Your task to perform on an android device: toggle improve location accuracy Image 0: 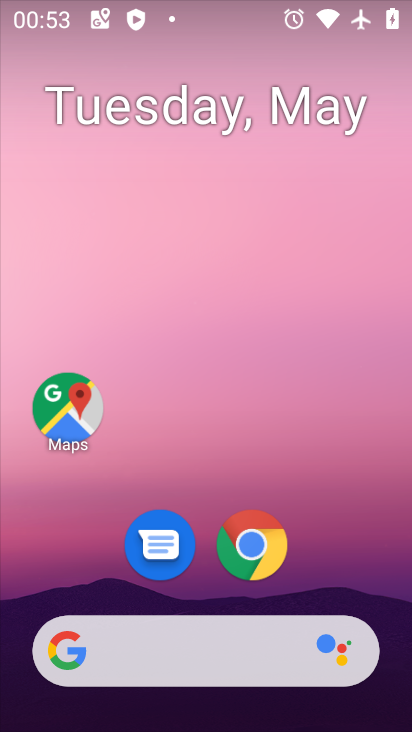
Step 0: drag from (333, 579) to (339, 17)
Your task to perform on an android device: toggle improve location accuracy Image 1: 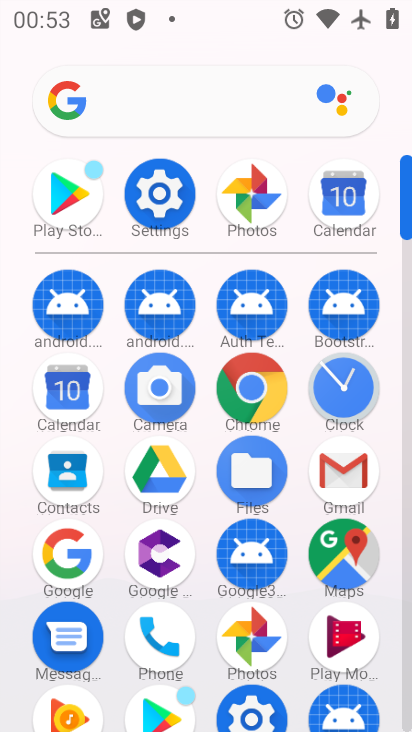
Step 1: click (161, 203)
Your task to perform on an android device: toggle improve location accuracy Image 2: 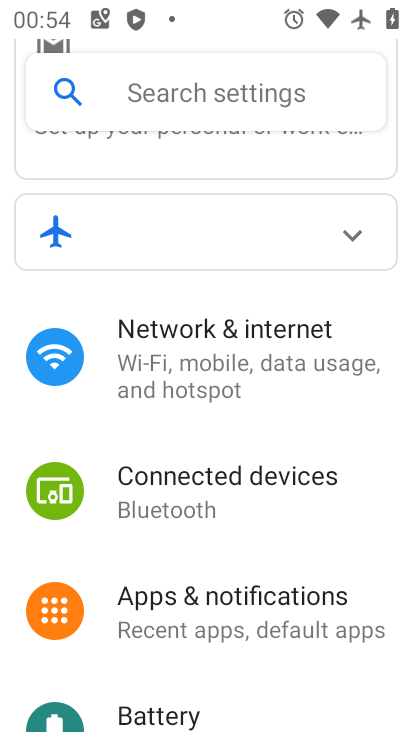
Step 2: drag from (186, 590) to (249, 187)
Your task to perform on an android device: toggle improve location accuracy Image 3: 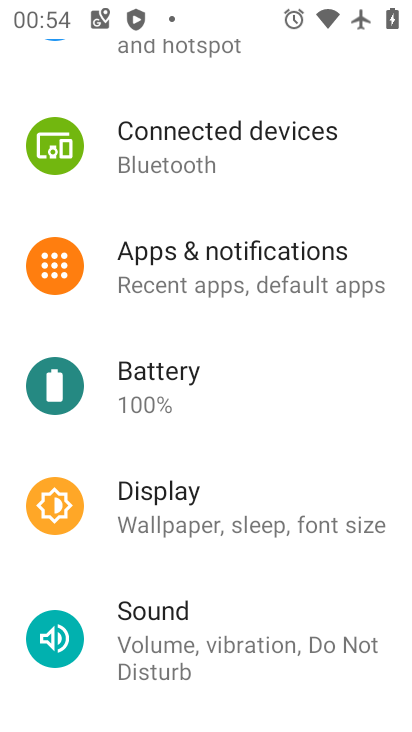
Step 3: drag from (292, 630) to (326, 241)
Your task to perform on an android device: toggle improve location accuracy Image 4: 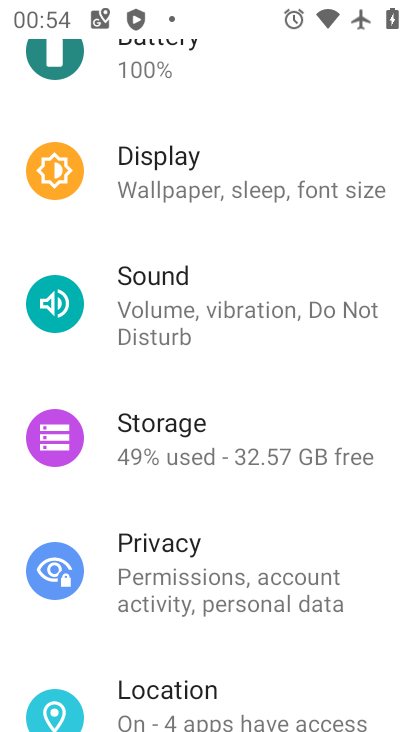
Step 4: click (237, 693)
Your task to perform on an android device: toggle improve location accuracy Image 5: 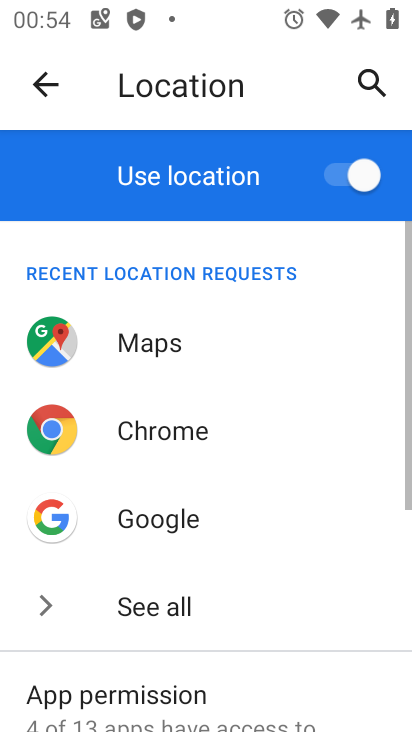
Step 5: drag from (231, 666) to (282, 271)
Your task to perform on an android device: toggle improve location accuracy Image 6: 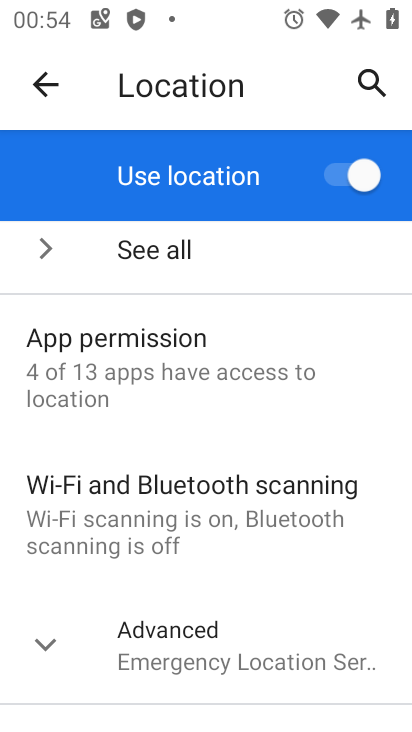
Step 6: click (293, 662)
Your task to perform on an android device: toggle improve location accuracy Image 7: 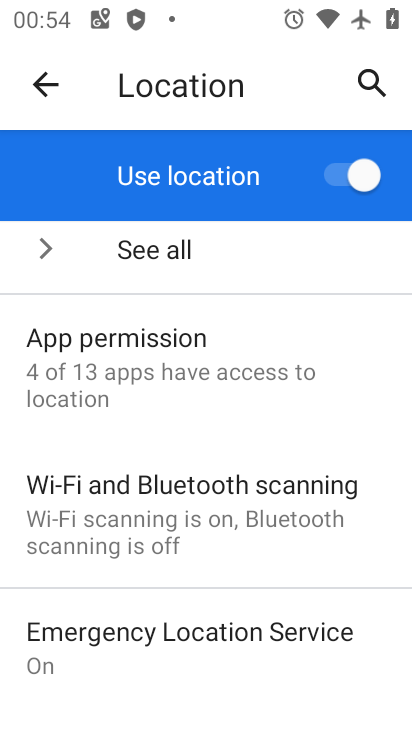
Step 7: drag from (277, 637) to (273, 364)
Your task to perform on an android device: toggle improve location accuracy Image 8: 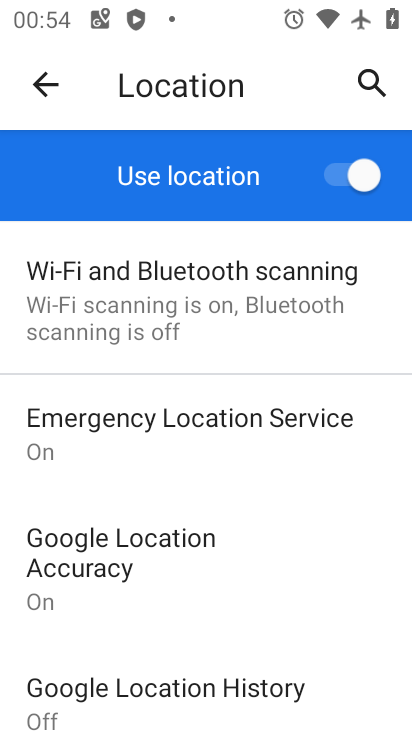
Step 8: click (101, 584)
Your task to perform on an android device: toggle improve location accuracy Image 9: 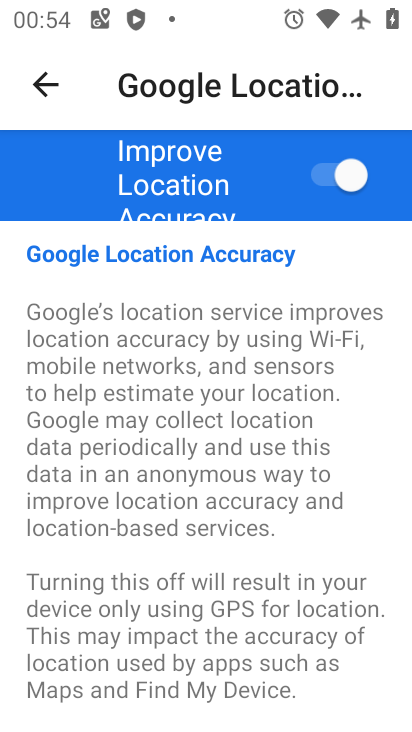
Step 9: click (308, 173)
Your task to perform on an android device: toggle improve location accuracy Image 10: 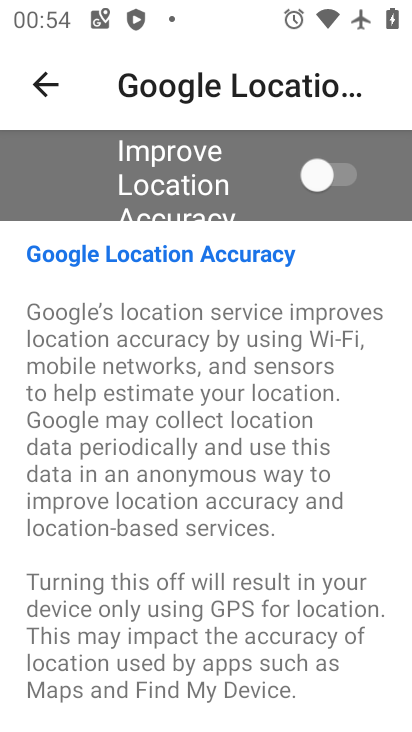
Step 10: task complete